Your task to perform on an android device: turn on notifications settings in the gmail app Image 0: 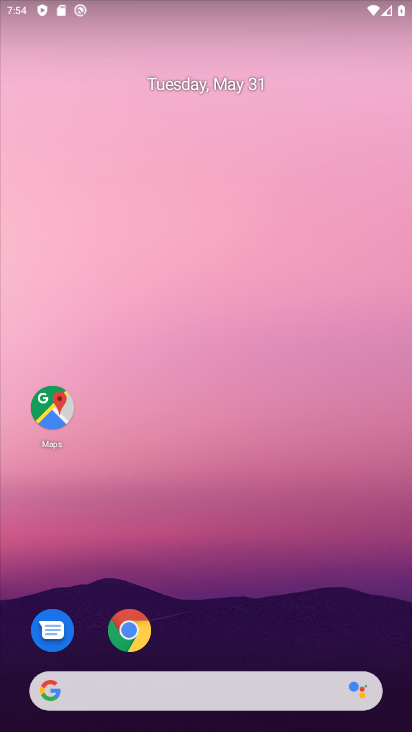
Step 0: drag from (222, 597) to (213, 37)
Your task to perform on an android device: turn on notifications settings in the gmail app Image 1: 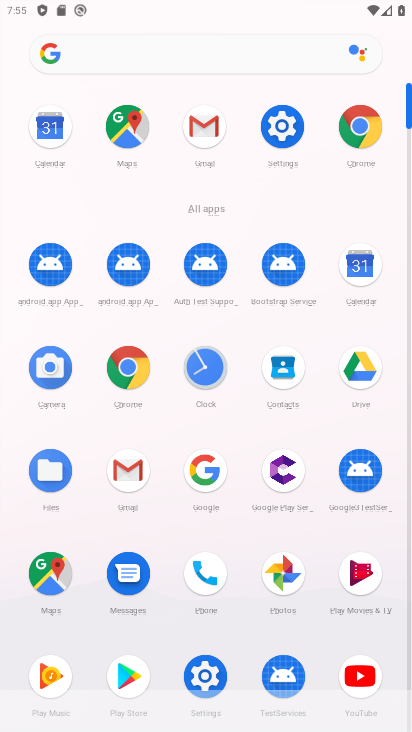
Step 1: click (216, 131)
Your task to perform on an android device: turn on notifications settings in the gmail app Image 2: 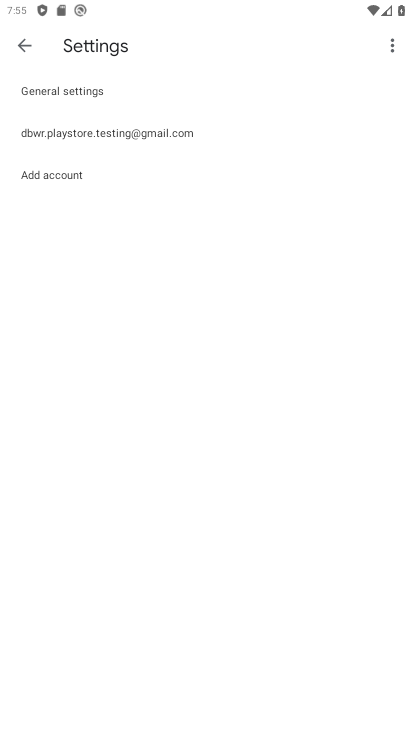
Step 2: click (94, 133)
Your task to perform on an android device: turn on notifications settings in the gmail app Image 3: 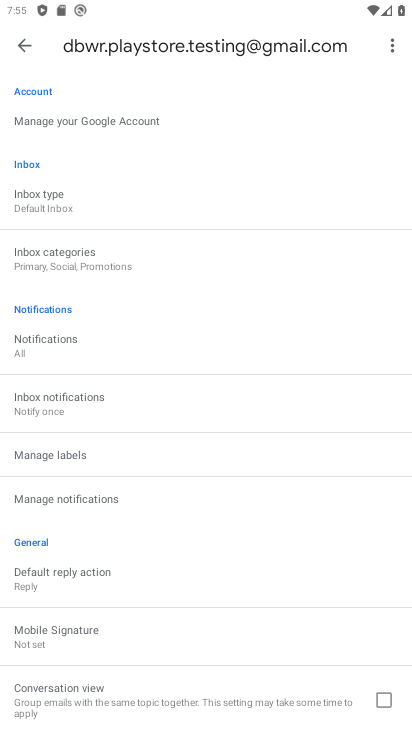
Step 3: click (73, 501)
Your task to perform on an android device: turn on notifications settings in the gmail app Image 4: 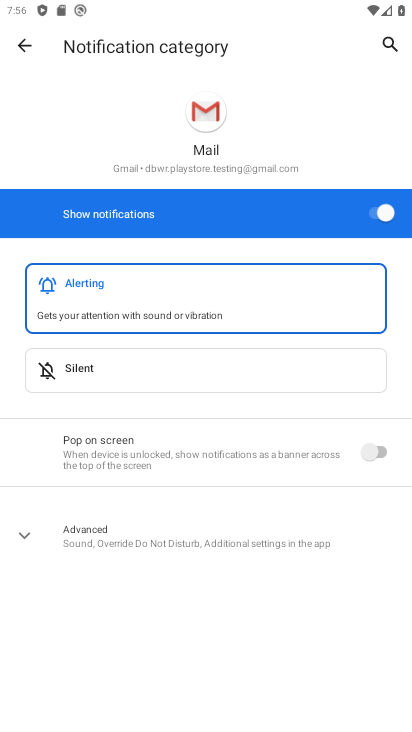
Step 4: task complete